Your task to perform on an android device: turn off smart reply in the gmail app Image 0: 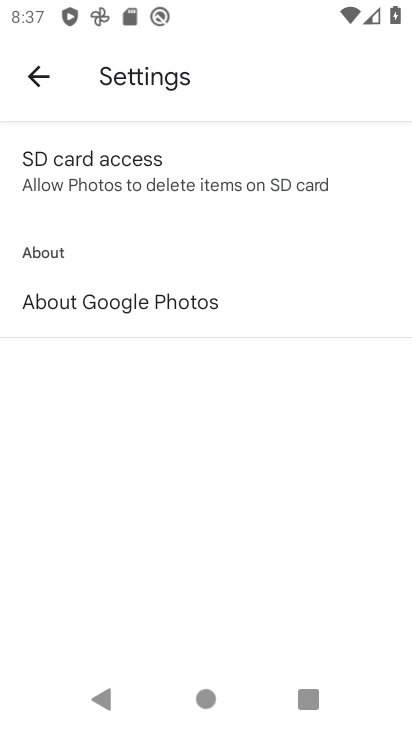
Step 0: press home button
Your task to perform on an android device: turn off smart reply in the gmail app Image 1: 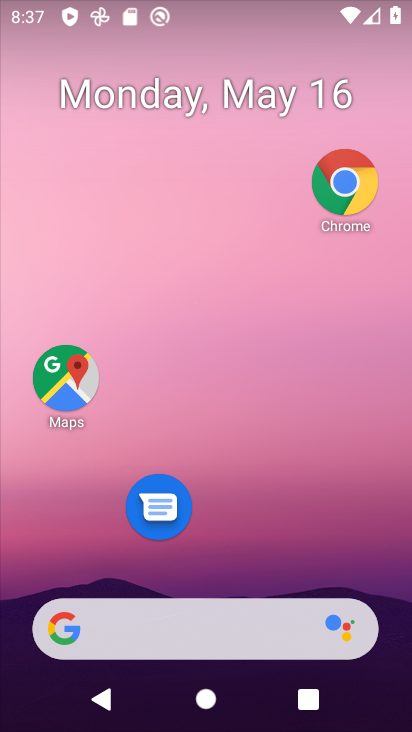
Step 1: drag from (211, 482) to (298, 63)
Your task to perform on an android device: turn off smart reply in the gmail app Image 2: 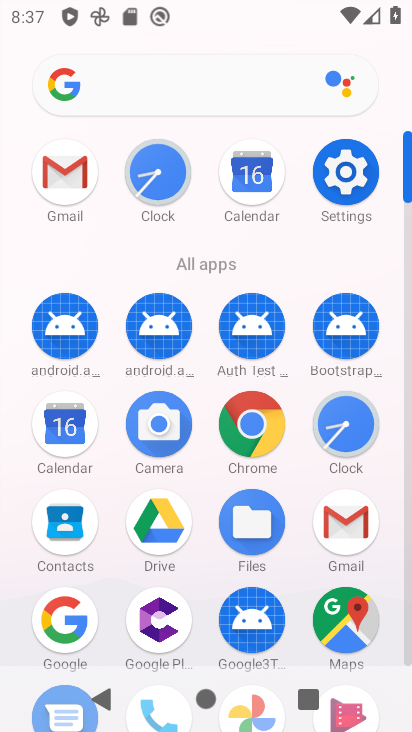
Step 2: click (347, 519)
Your task to perform on an android device: turn off smart reply in the gmail app Image 3: 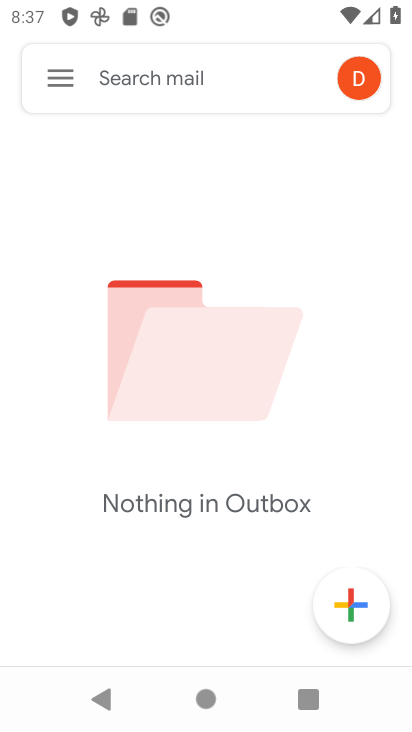
Step 3: click (56, 83)
Your task to perform on an android device: turn off smart reply in the gmail app Image 4: 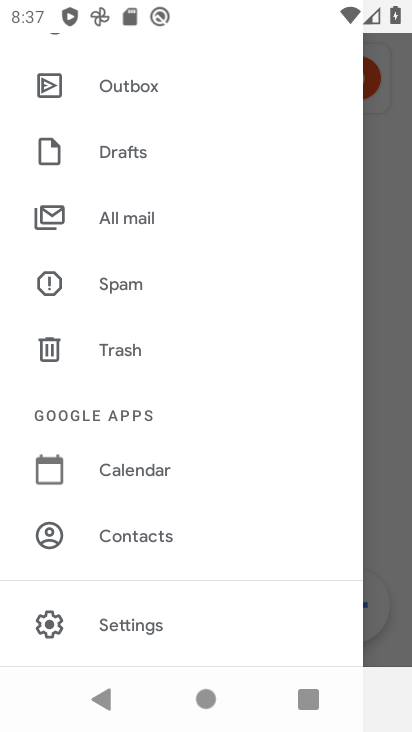
Step 4: click (128, 614)
Your task to perform on an android device: turn off smart reply in the gmail app Image 5: 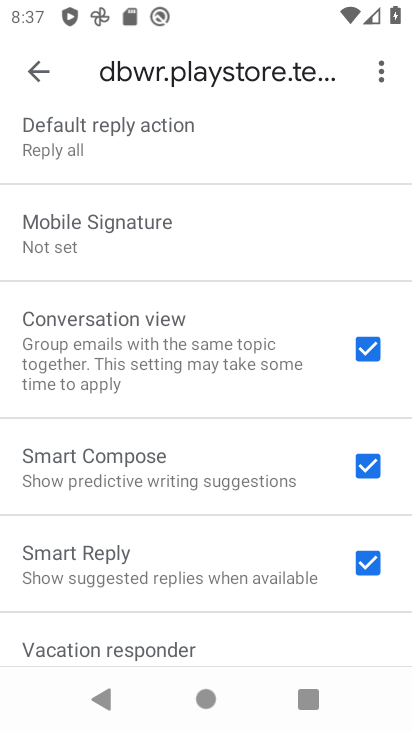
Step 5: click (356, 557)
Your task to perform on an android device: turn off smart reply in the gmail app Image 6: 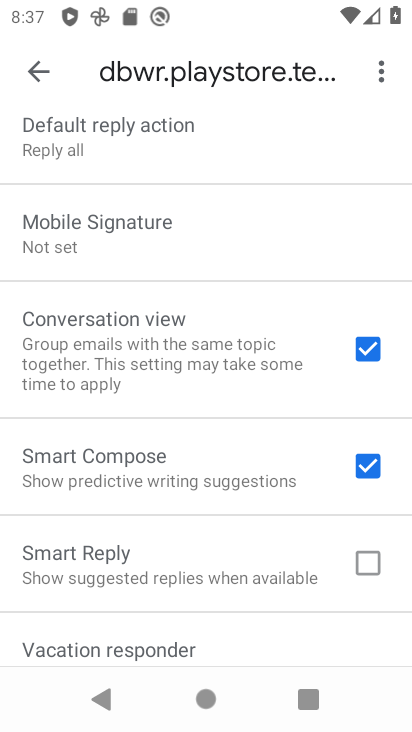
Step 6: task complete